Your task to perform on an android device: Open Youtube and go to "Your channel" Image 0: 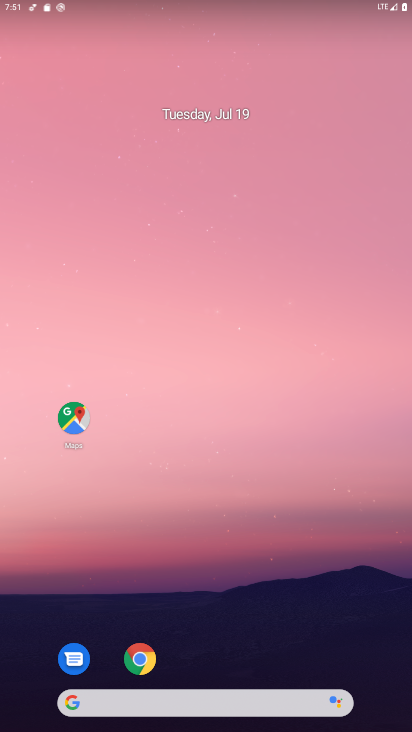
Step 0: drag from (189, 652) to (280, 0)
Your task to perform on an android device: Open Youtube and go to "Your channel" Image 1: 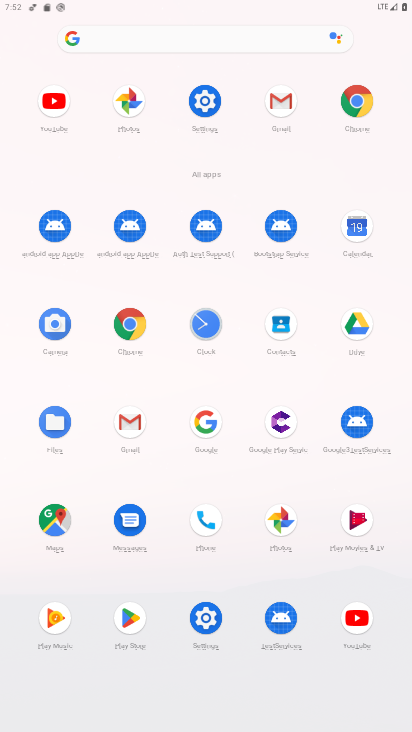
Step 1: click (359, 626)
Your task to perform on an android device: Open Youtube and go to "Your channel" Image 2: 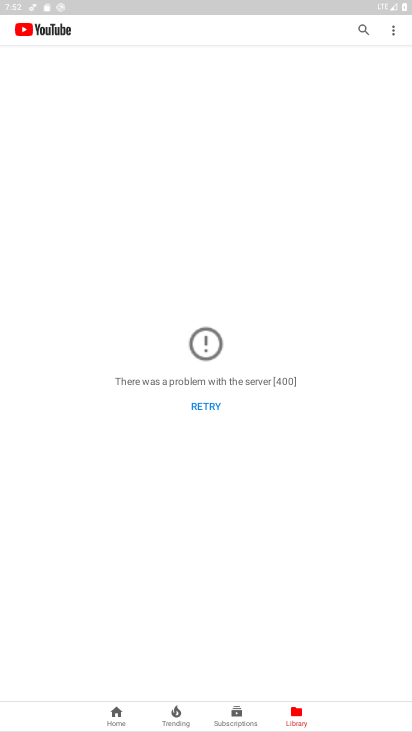
Step 2: click (200, 407)
Your task to perform on an android device: Open Youtube and go to "Your channel" Image 3: 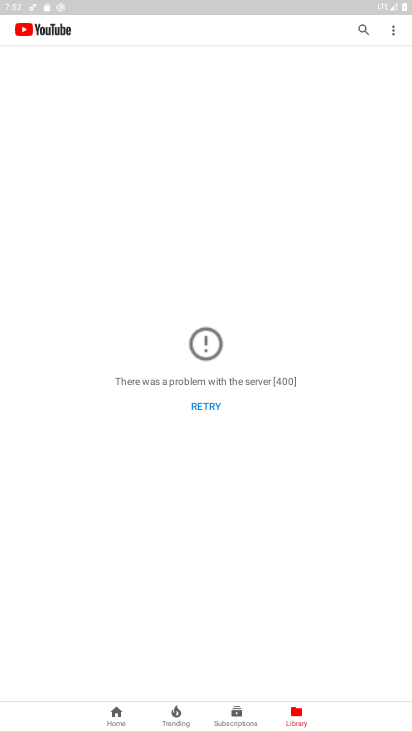
Step 3: click (206, 400)
Your task to perform on an android device: Open Youtube and go to "Your channel" Image 4: 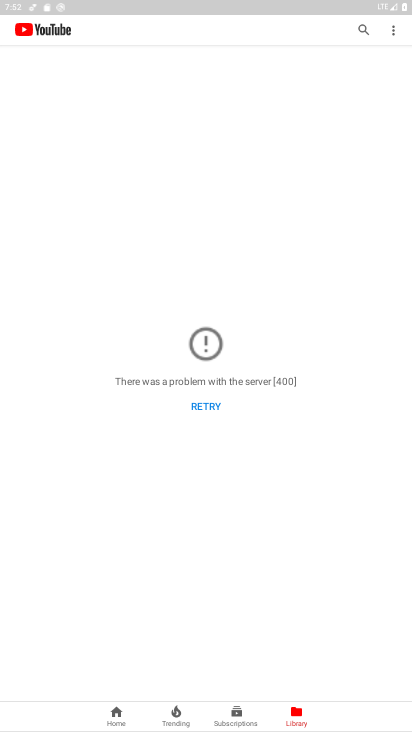
Step 4: click (206, 400)
Your task to perform on an android device: Open Youtube and go to "Your channel" Image 5: 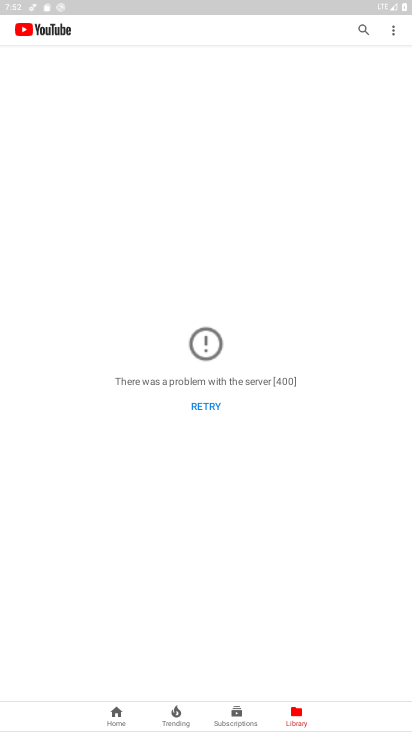
Step 5: click (206, 400)
Your task to perform on an android device: Open Youtube and go to "Your channel" Image 6: 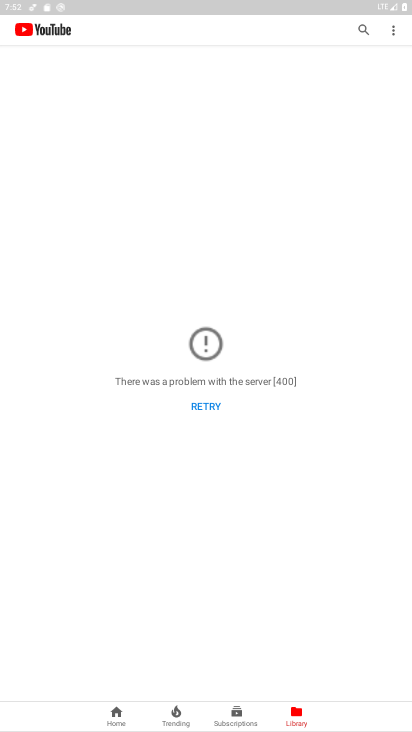
Step 6: click (205, 401)
Your task to perform on an android device: Open Youtube and go to "Your channel" Image 7: 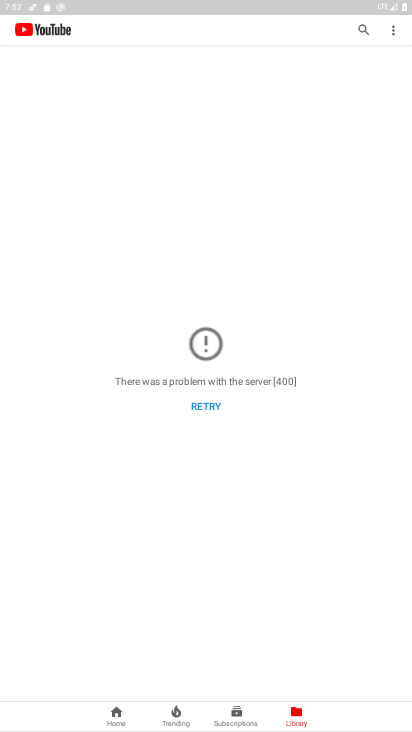
Step 7: task complete